Your task to perform on an android device: allow notifications from all sites in the chrome app Image 0: 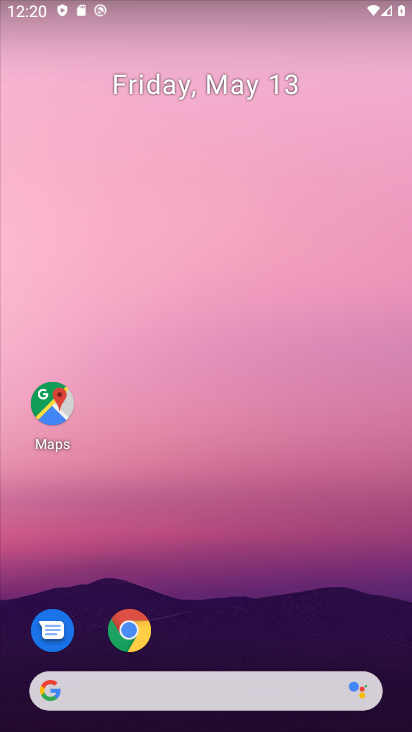
Step 0: drag from (204, 707) to (212, 202)
Your task to perform on an android device: allow notifications from all sites in the chrome app Image 1: 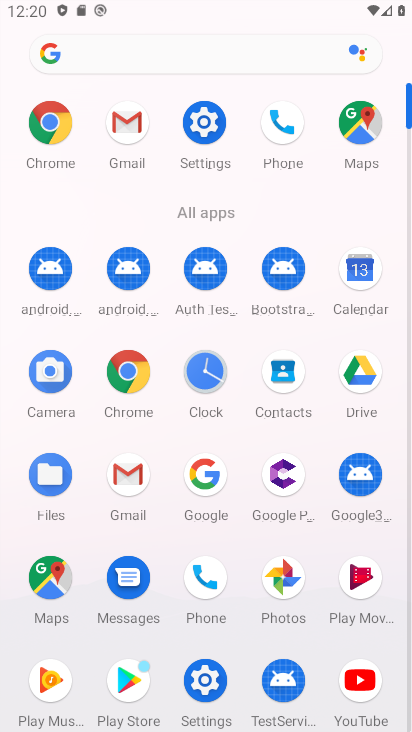
Step 1: click (138, 382)
Your task to perform on an android device: allow notifications from all sites in the chrome app Image 2: 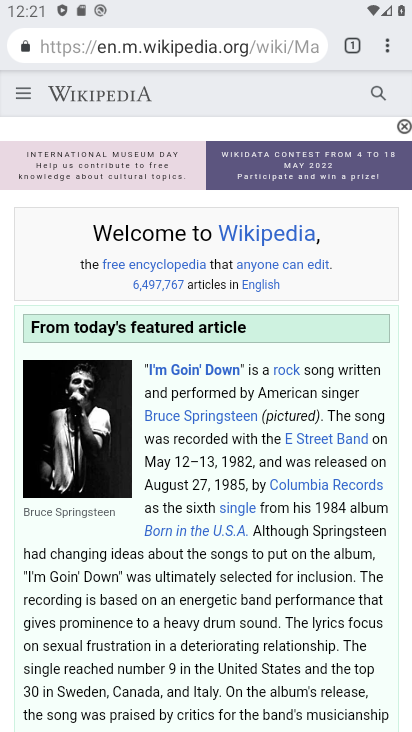
Step 2: click (378, 53)
Your task to perform on an android device: allow notifications from all sites in the chrome app Image 3: 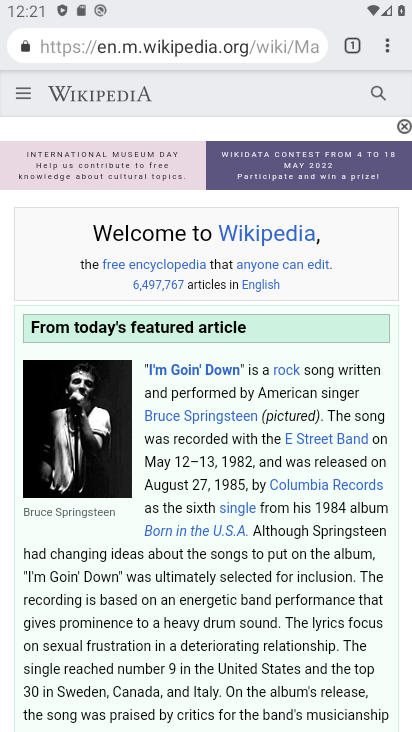
Step 3: click (377, 56)
Your task to perform on an android device: allow notifications from all sites in the chrome app Image 4: 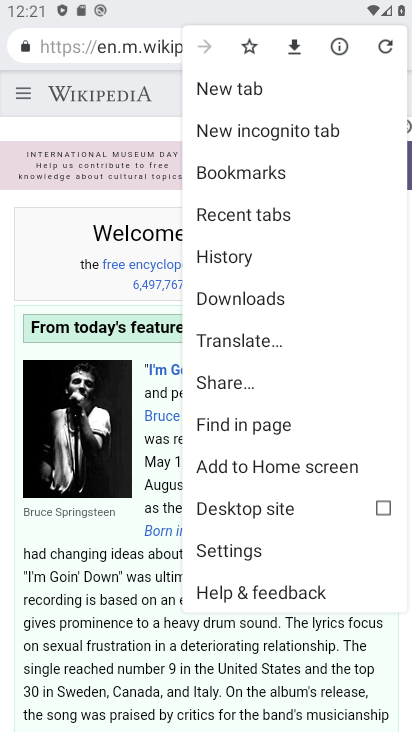
Step 4: click (218, 542)
Your task to perform on an android device: allow notifications from all sites in the chrome app Image 5: 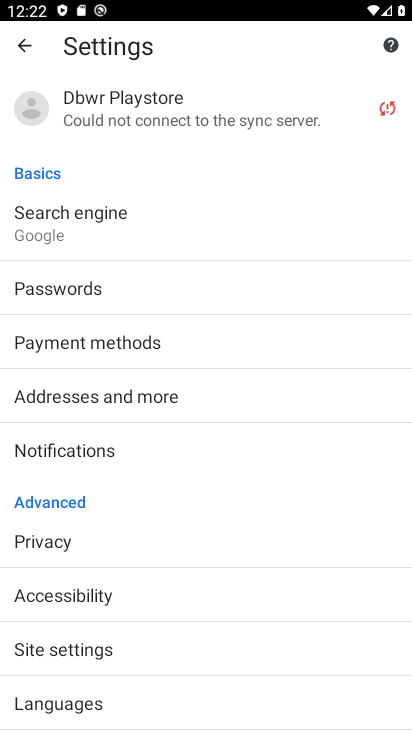
Step 5: click (94, 647)
Your task to perform on an android device: allow notifications from all sites in the chrome app Image 6: 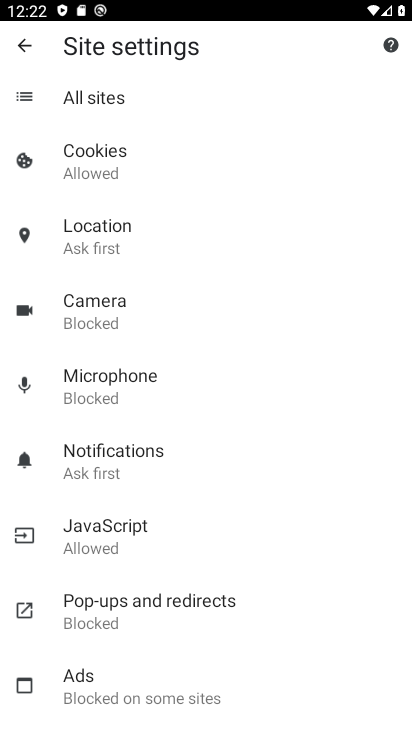
Step 6: click (106, 473)
Your task to perform on an android device: allow notifications from all sites in the chrome app Image 7: 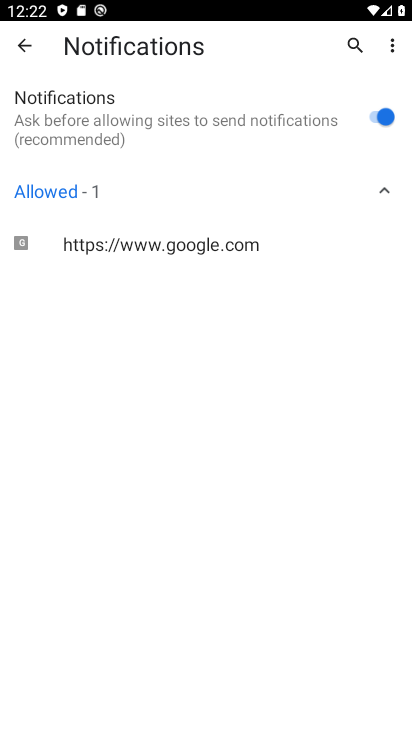
Step 7: click (321, 118)
Your task to perform on an android device: allow notifications from all sites in the chrome app Image 8: 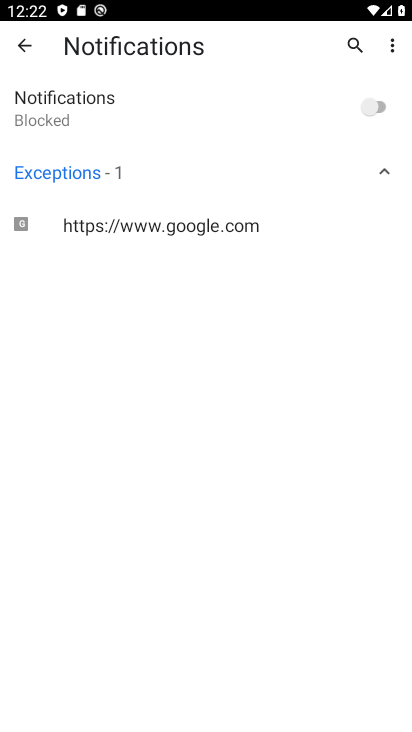
Step 8: click (322, 118)
Your task to perform on an android device: allow notifications from all sites in the chrome app Image 9: 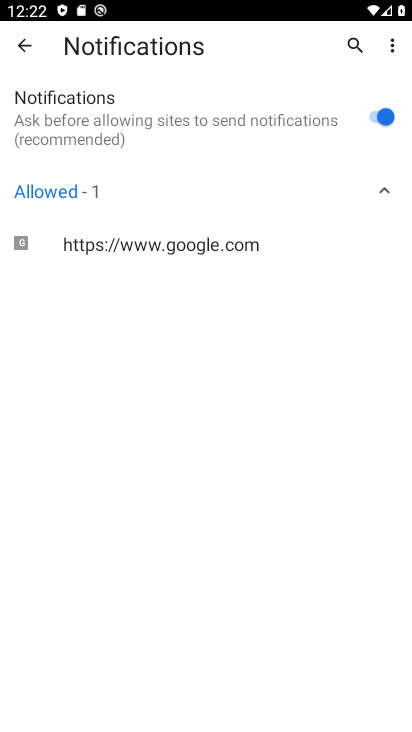
Step 9: task complete